Your task to perform on an android device: turn off picture-in-picture Image 0: 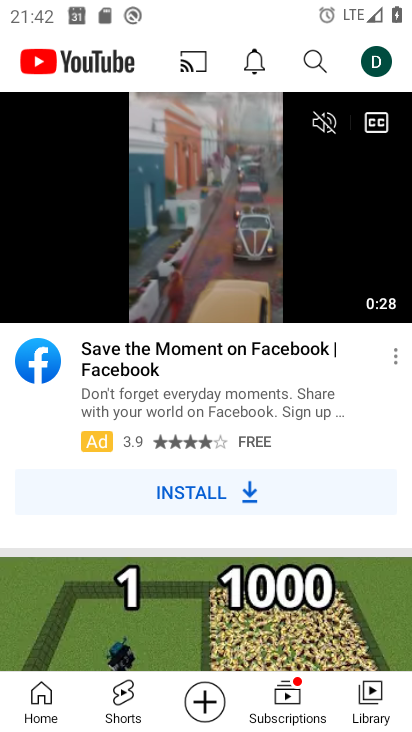
Step 0: press home button
Your task to perform on an android device: turn off picture-in-picture Image 1: 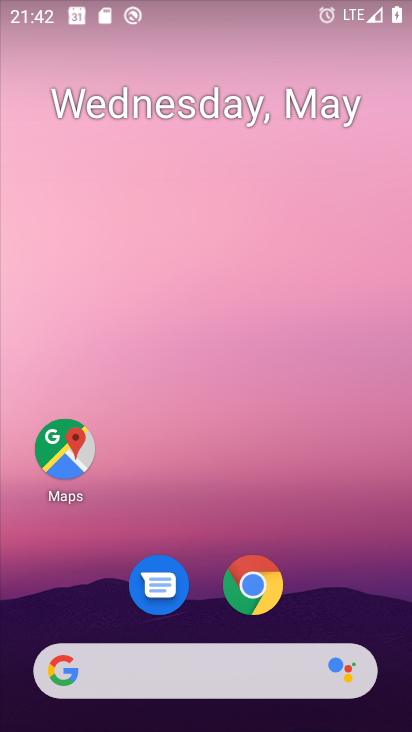
Step 1: click (261, 578)
Your task to perform on an android device: turn off picture-in-picture Image 2: 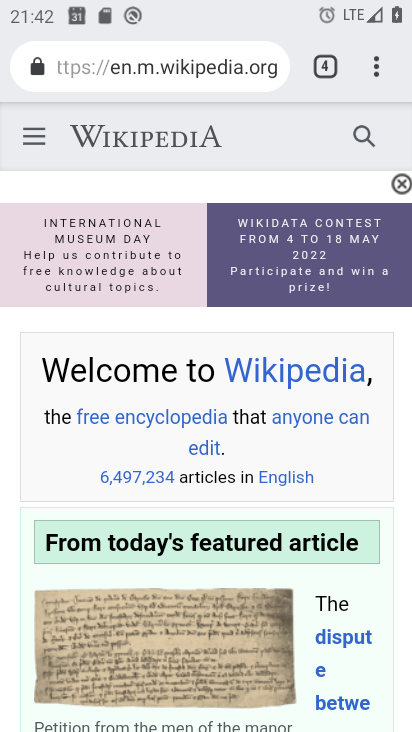
Step 2: press back button
Your task to perform on an android device: turn off picture-in-picture Image 3: 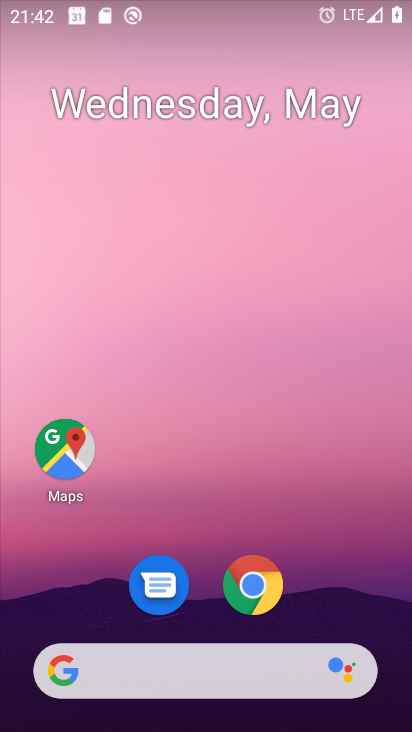
Step 3: click (261, 581)
Your task to perform on an android device: turn off picture-in-picture Image 4: 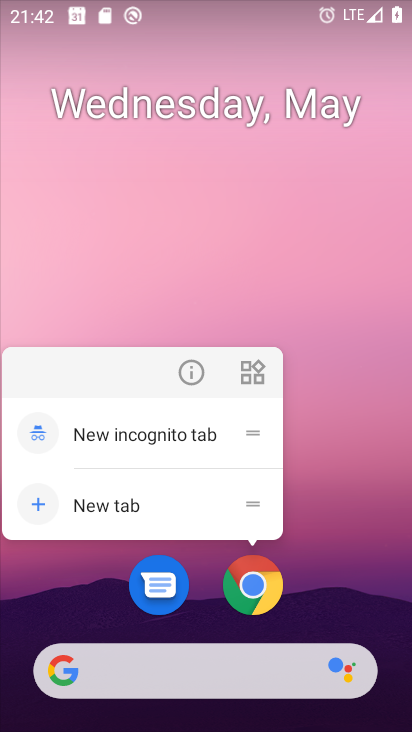
Step 4: click (193, 359)
Your task to perform on an android device: turn off picture-in-picture Image 5: 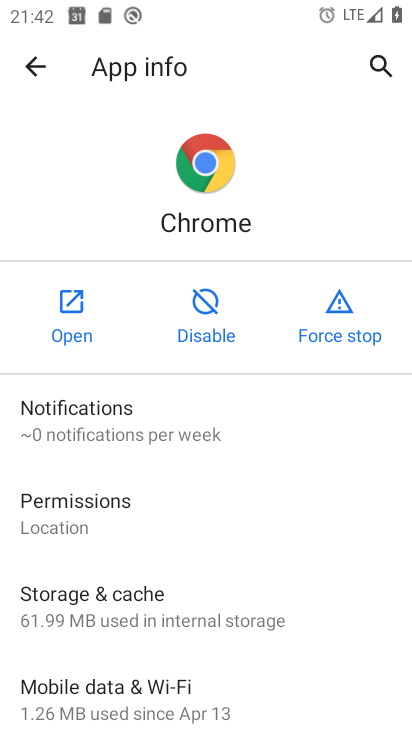
Step 5: drag from (252, 664) to (287, 231)
Your task to perform on an android device: turn off picture-in-picture Image 6: 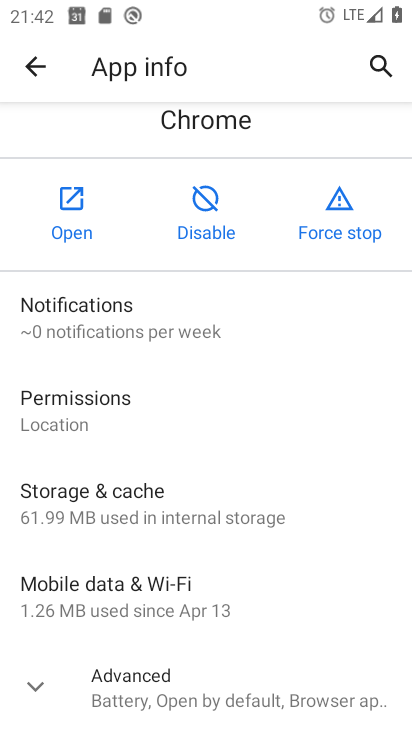
Step 6: click (36, 684)
Your task to perform on an android device: turn off picture-in-picture Image 7: 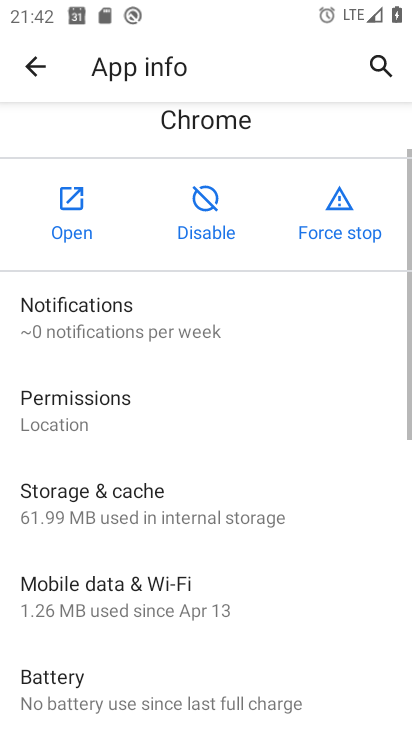
Step 7: drag from (264, 582) to (258, 4)
Your task to perform on an android device: turn off picture-in-picture Image 8: 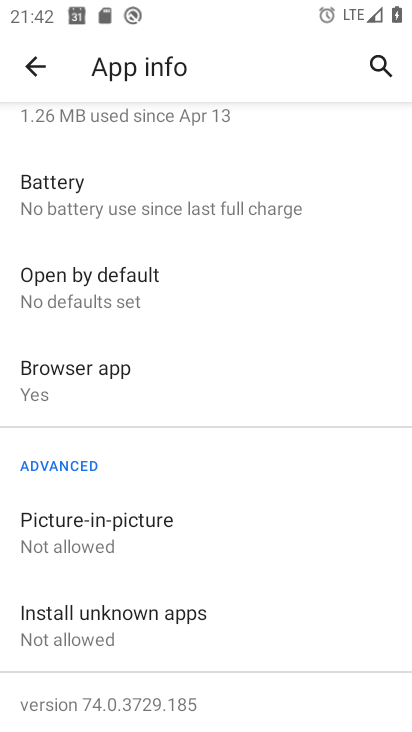
Step 8: click (120, 537)
Your task to perform on an android device: turn off picture-in-picture Image 9: 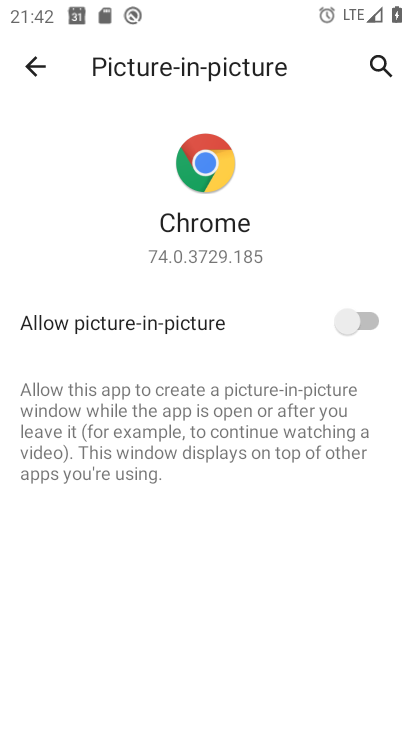
Step 9: task complete